Your task to perform on an android device: Go to privacy settings Image 0: 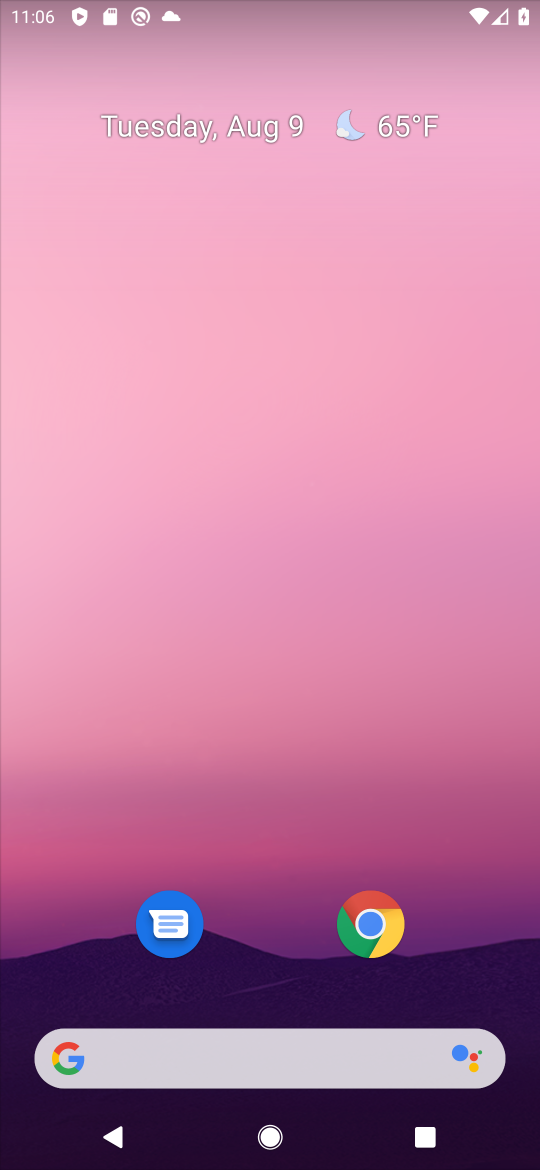
Step 0: drag from (296, 976) to (415, 93)
Your task to perform on an android device: Go to privacy settings Image 1: 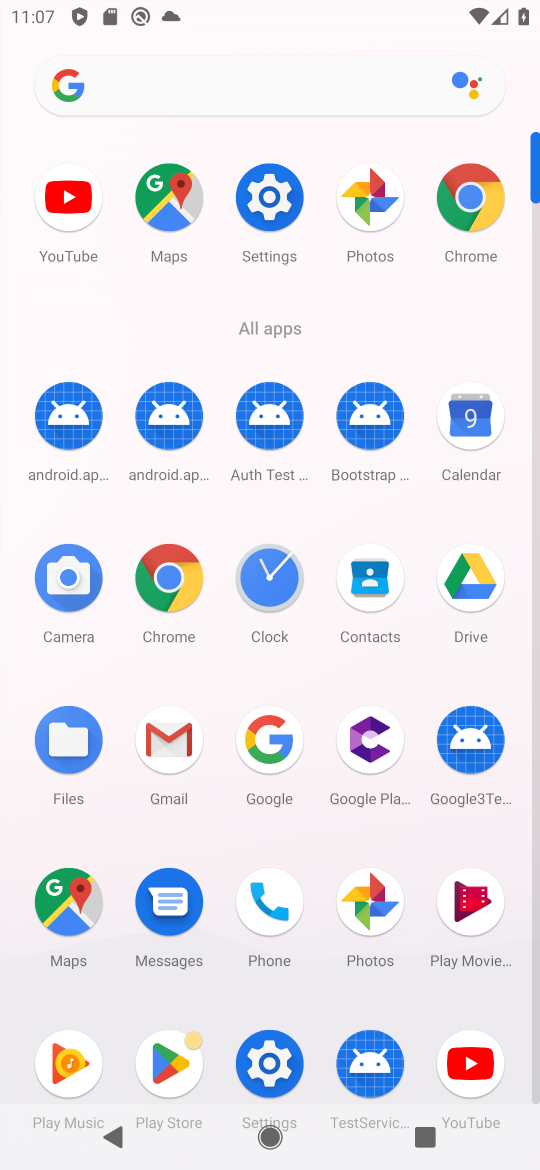
Step 1: click (282, 1067)
Your task to perform on an android device: Go to privacy settings Image 2: 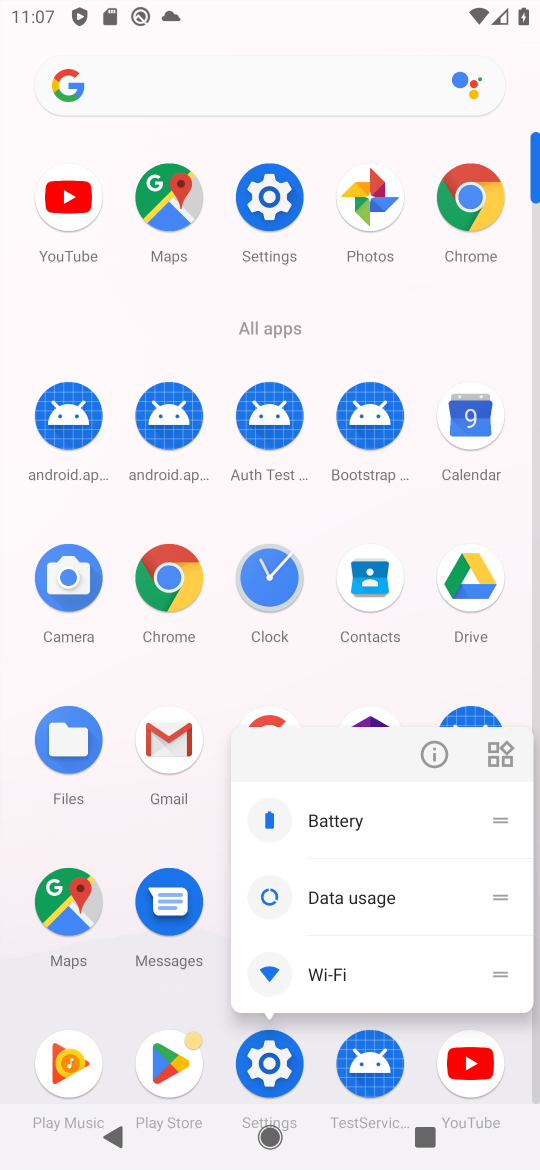
Step 2: click (282, 1067)
Your task to perform on an android device: Go to privacy settings Image 3: 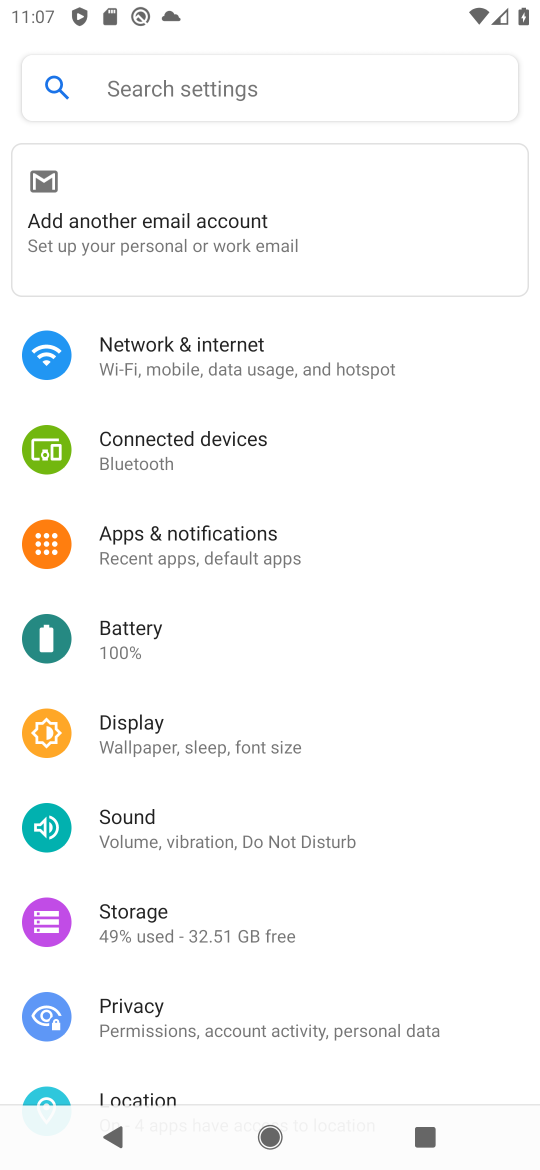
Step 3: drag from (265, 972) to (357, 572)
Your task to perform on an android device: Go to privacy settings Image 4: 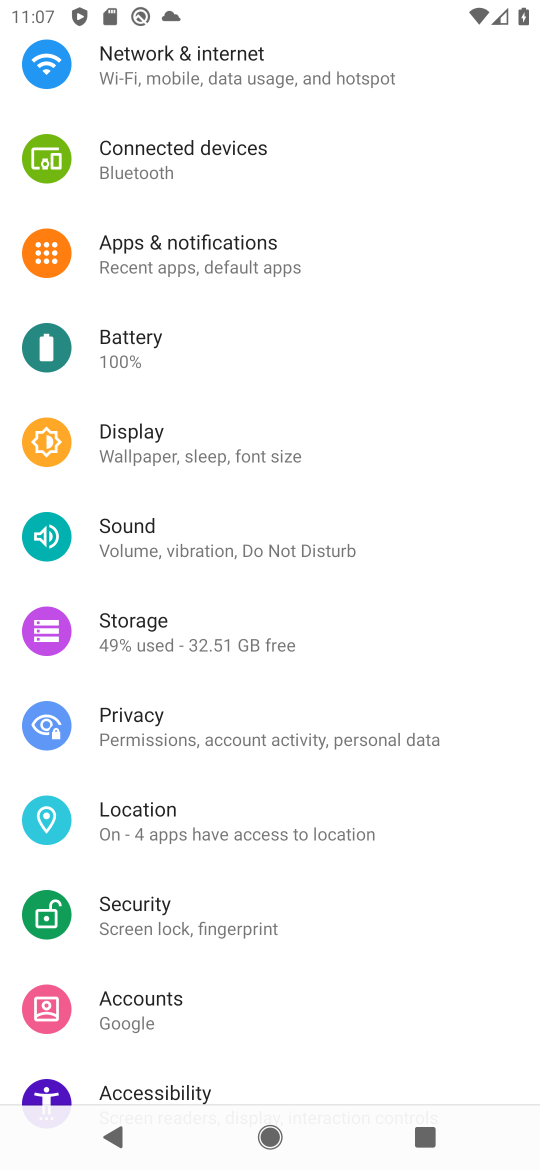
Step 4: click (153, 718)
Your task to perform on an android device: Go to privacy settings Image 5: 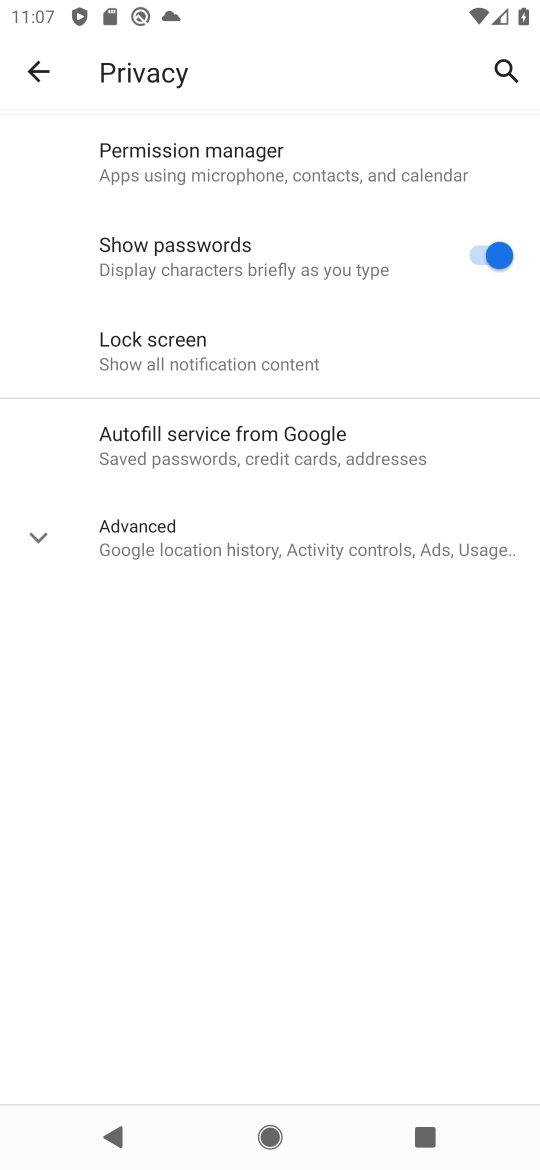
Step 5: task complete